Your task to perform on an android device: add a label to a message in the gmail app Image 0: 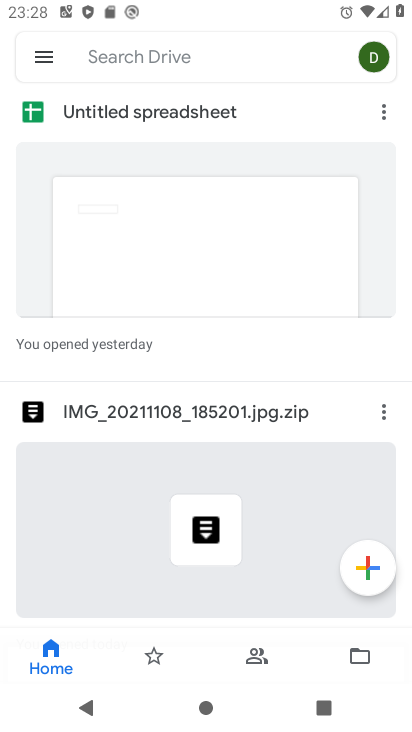
Step 0: press home button
Your task to perform on an android device: add a label to a message in the gmail app Image 1: 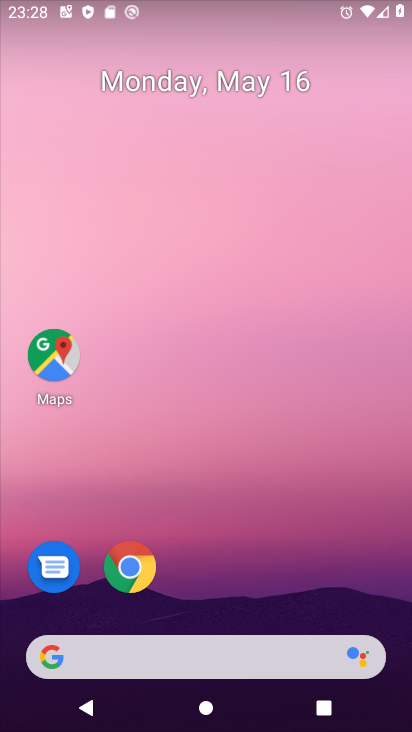
Step 1: drag from (197, 480) to (153, 84)
Your task to perform on an android device: add a label to a message in the gmail app Image 2: 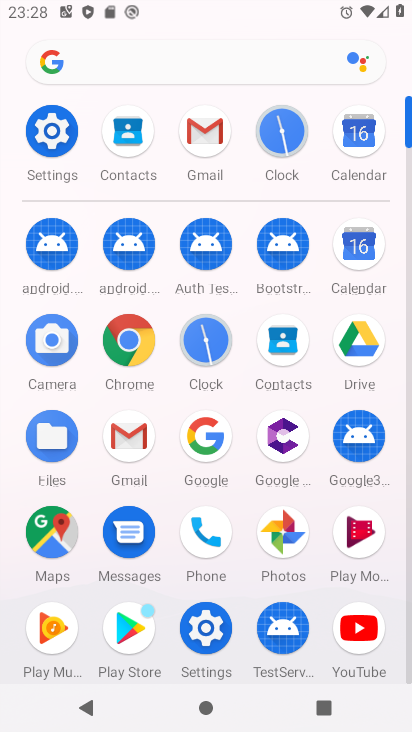
Step 2: click (114, 430)
Your task to perform on an android device: add a label to a message in the gmail app Image 3: 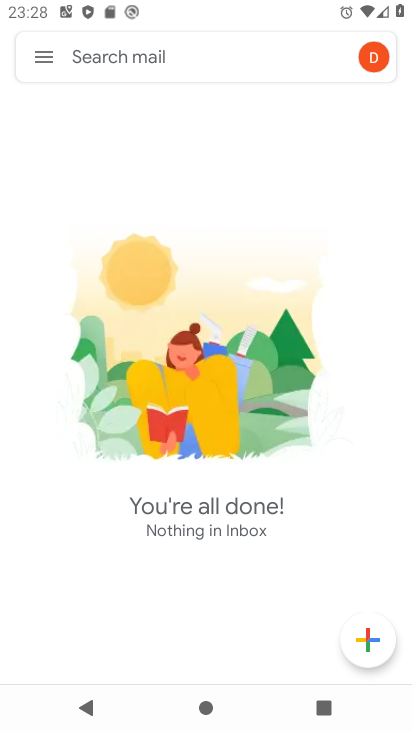
Step 3: task complete